Your task to perform on an android device: Open location settings Image 0: 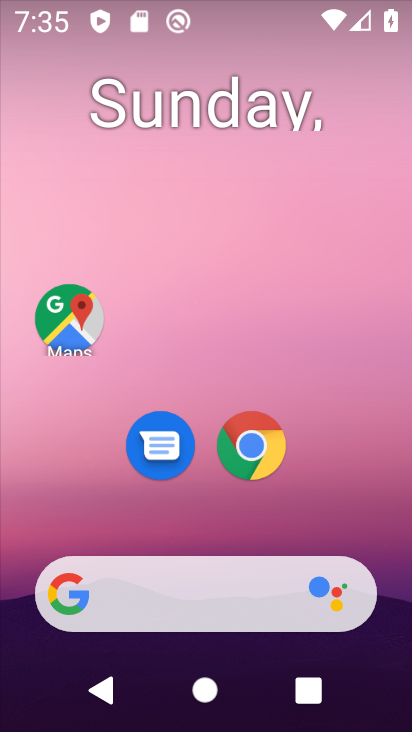
Step 0: drag from (206, 473) to (246, 318)
Your task to perform on an android device: Open location settings Image 1: 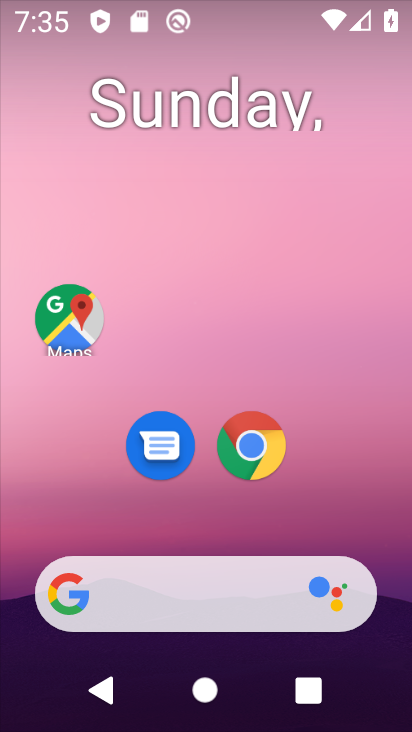
Step 1: drag from (214, 477) to (295, 88)
Your task to perform on an android device: Open location settings Image 2: 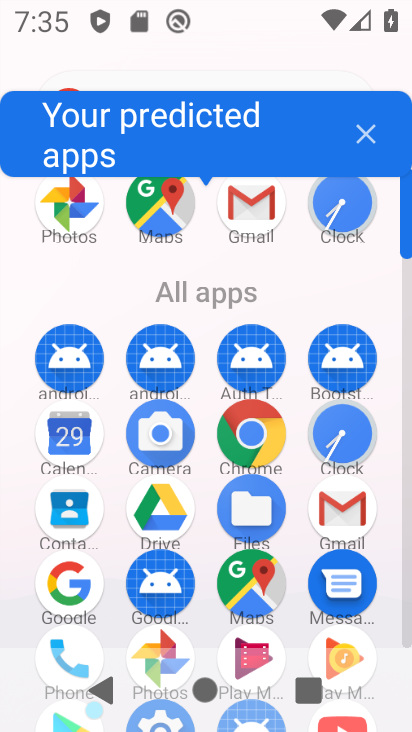
Step 2: drag from (212, 628) to (199, 152)
Your task to perform on an android device: Open location settings Image 3: 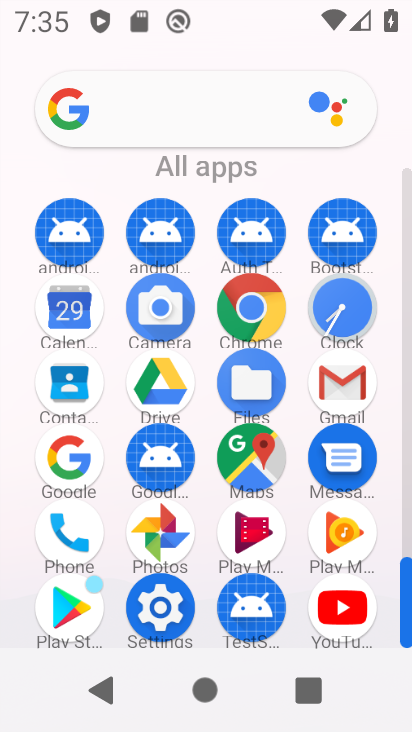
Step 3: click (160, 604)
Your task to perform on an android device: Open location settings Image 4: 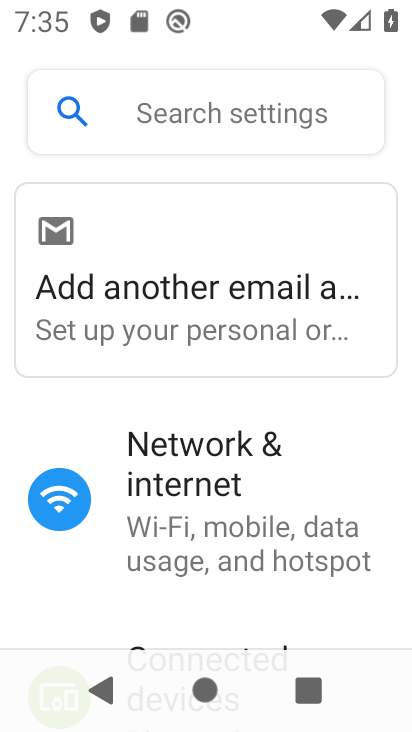
Step 4: drag from (212, 590) to (270, 89)
Your task to perform on an android device: Open location settings Image 5: 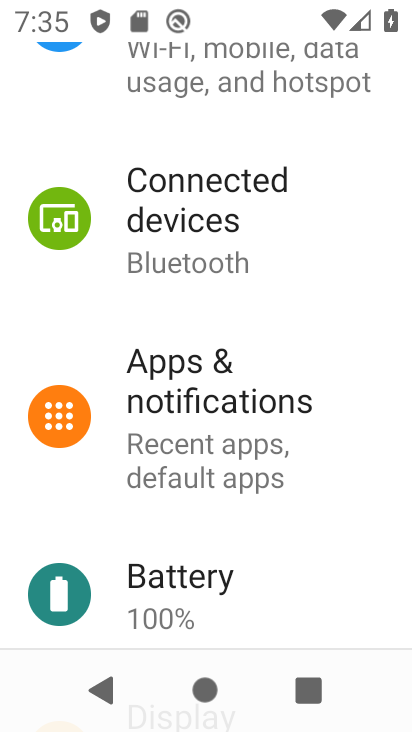
Step 5: drag from (161, 530) to (224, 54)
Your task to perform on an android device: Open location settings Image 6: 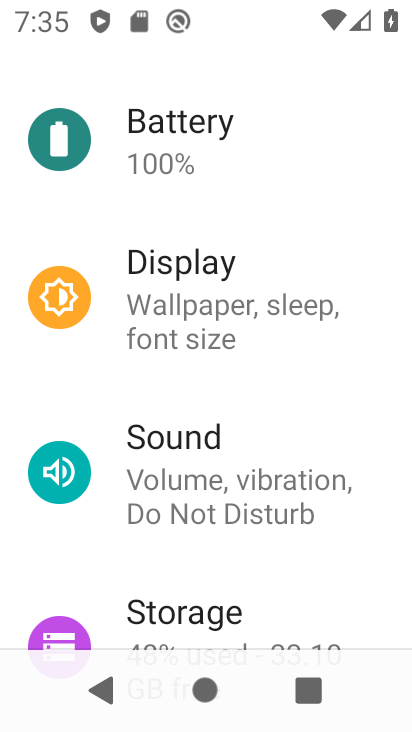
Step 6: drag from (184, 547) to (254, 128)
Your task to perform on an android device: Open location settings Image 7: 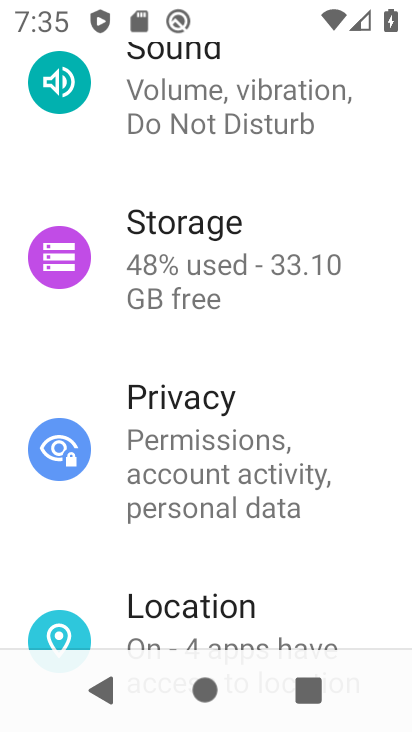
Step 7: click (179, 606)
Your task to perform on an android device: Open location settings Image 8: 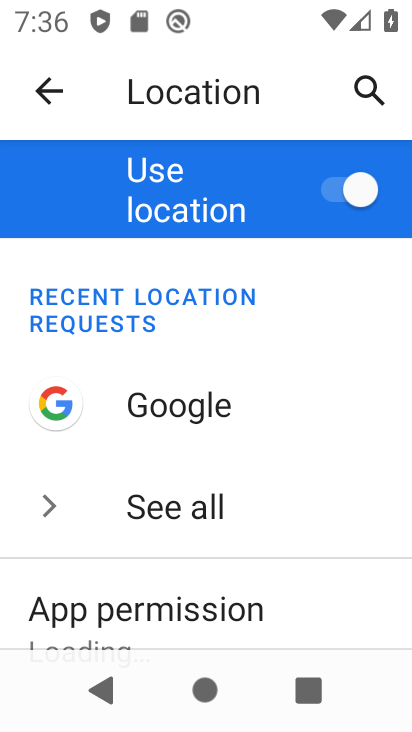
Step 8: task complete